Your task to perform on an android device: Do I have any events this weekend? Image 0: 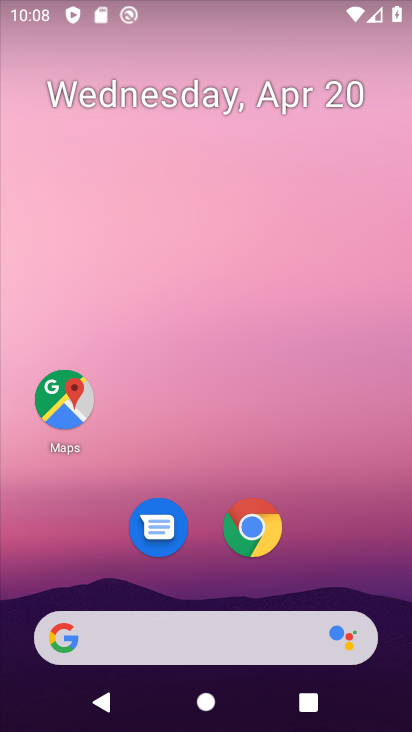
Step 0: drag from (185, 486) to (410, 448)
Your task to perform on an android device: Do I have any events this weekend? Image 1: 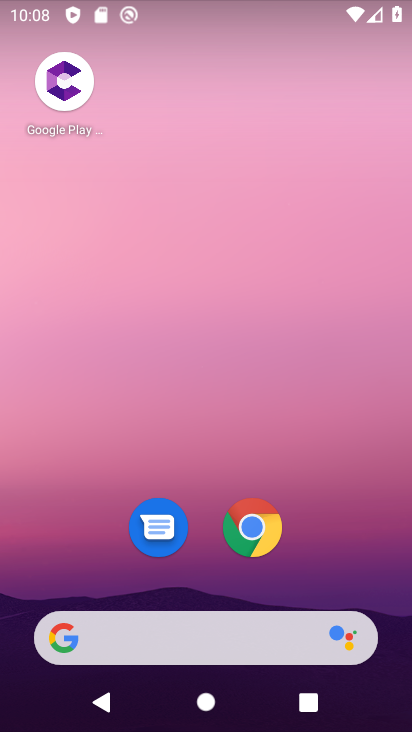
Step 1: drag from (210, 595) to (349, 27)
Your task to perform on an android device: Do I have any events this weekend? Image 2: 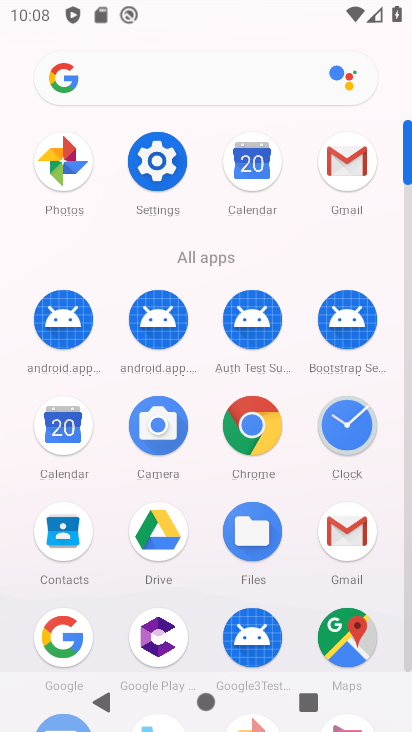
Step 2: click (266, 183)
Your task to perform on an android device: Do I have any events this weekend? Image 3: 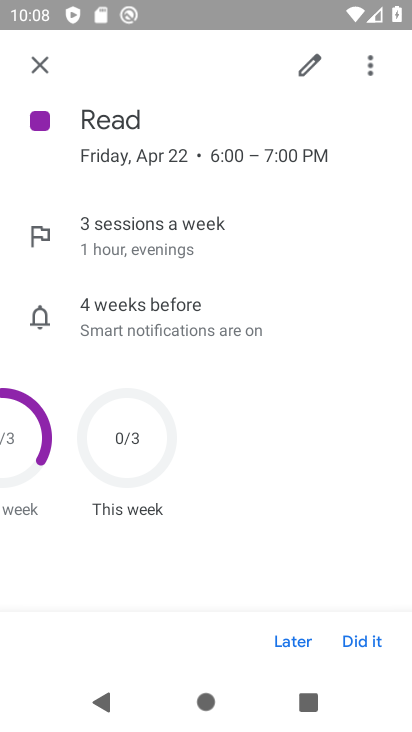
Step 3: click (41, 65)
Your task to perform on an android device: Do I have any events this weekend? Image 4: 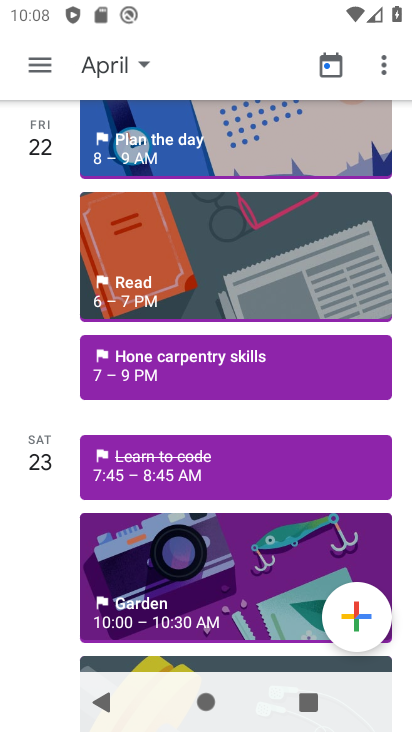
Step 4: click (41, 65)
Your task to perform on an android device: Do I have any events this weekend? Image 5: 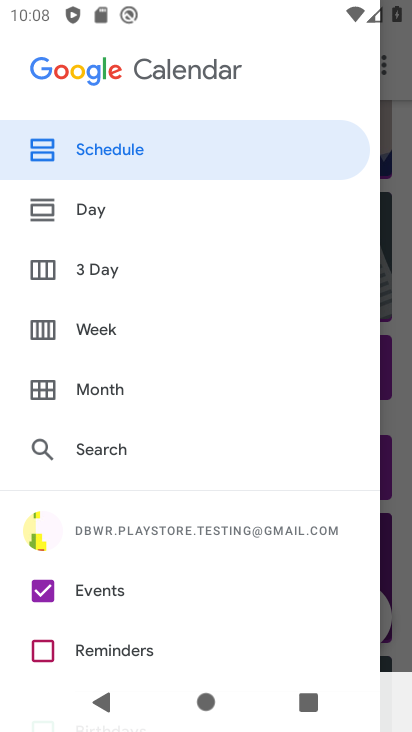
Step 5: click (107, 331)
Your task to perform on an android device: Do I have any events this weekend? Image 6: 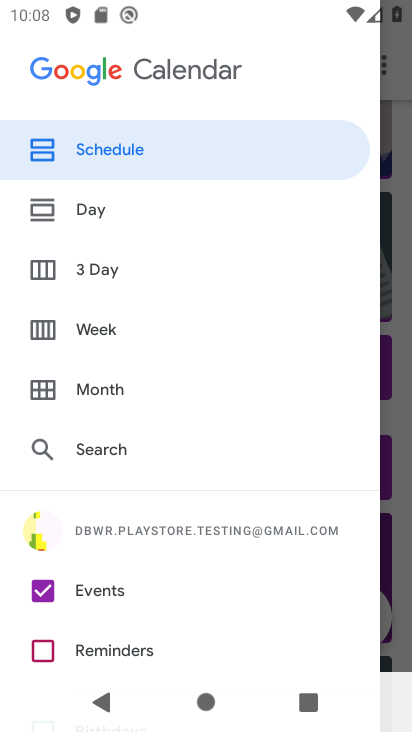
Step 6: click (107, 331)
Your task to perform on an android device: Do I have any events this weekend? Image 7: 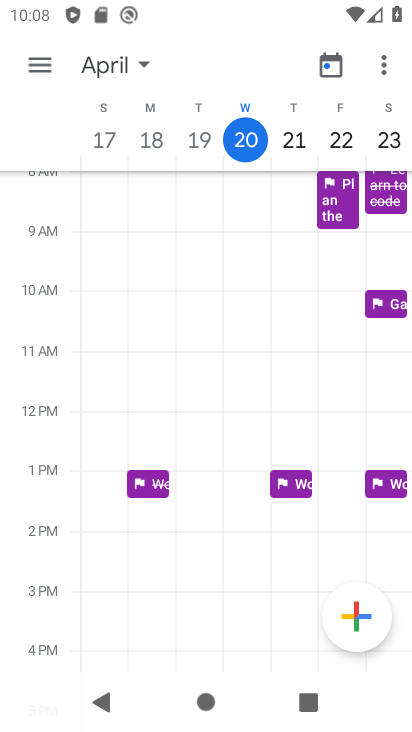
Step 7: task complete